Your task to perform on an android device: Search for the new Steph Curry shoes on Nike.com Image 0: 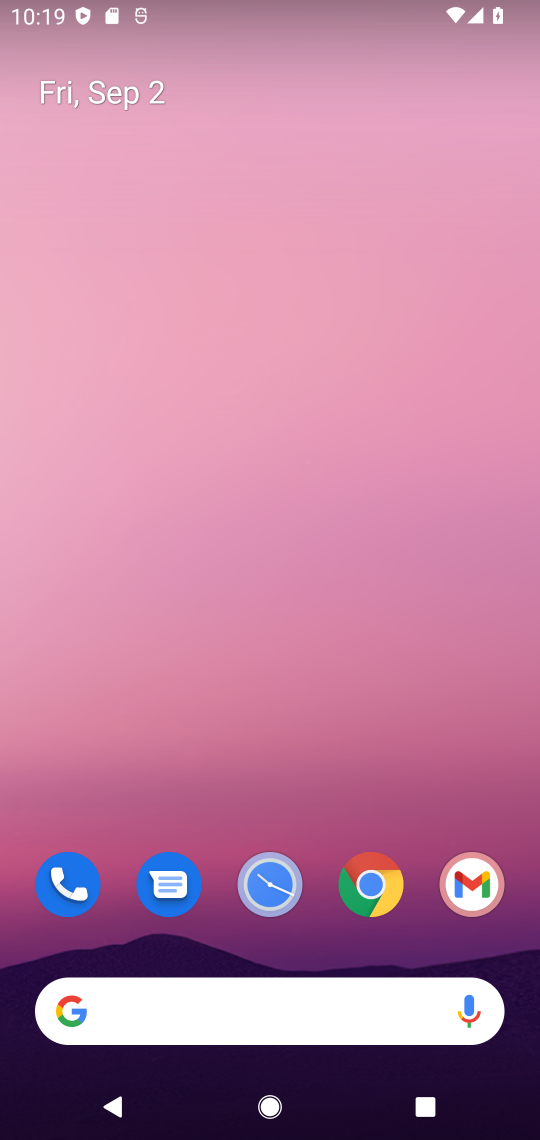
Step 0: click (309, 218)
Your task to perform on an android device: Search for the new Steph Curry shoes on Nike.com Image 1: 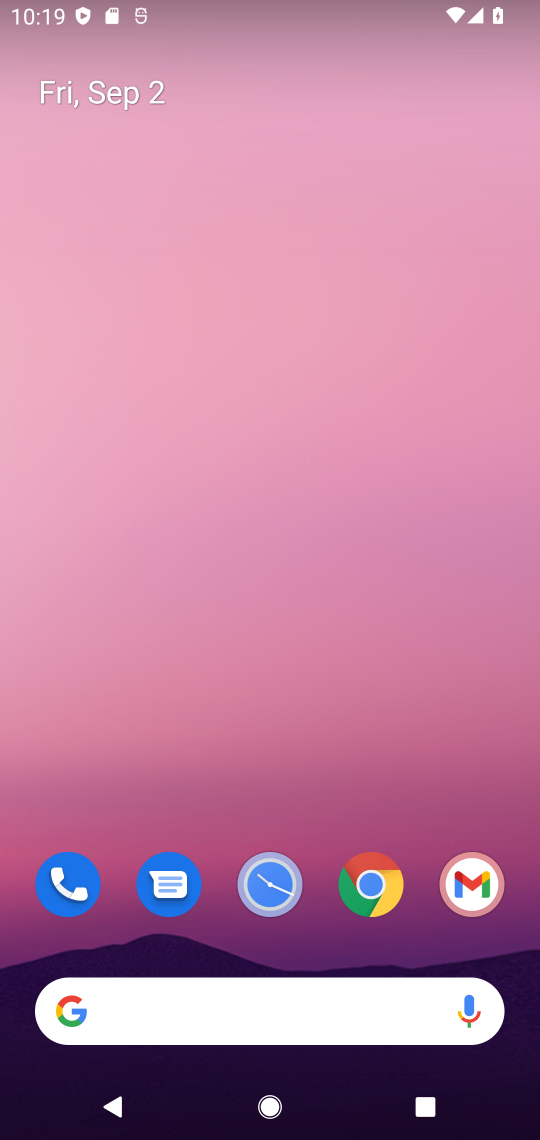
Step 1: click (309, 211)
Your task to perform on an android device: Search for the new Steph Curry shoes on Nike.com Image 2: 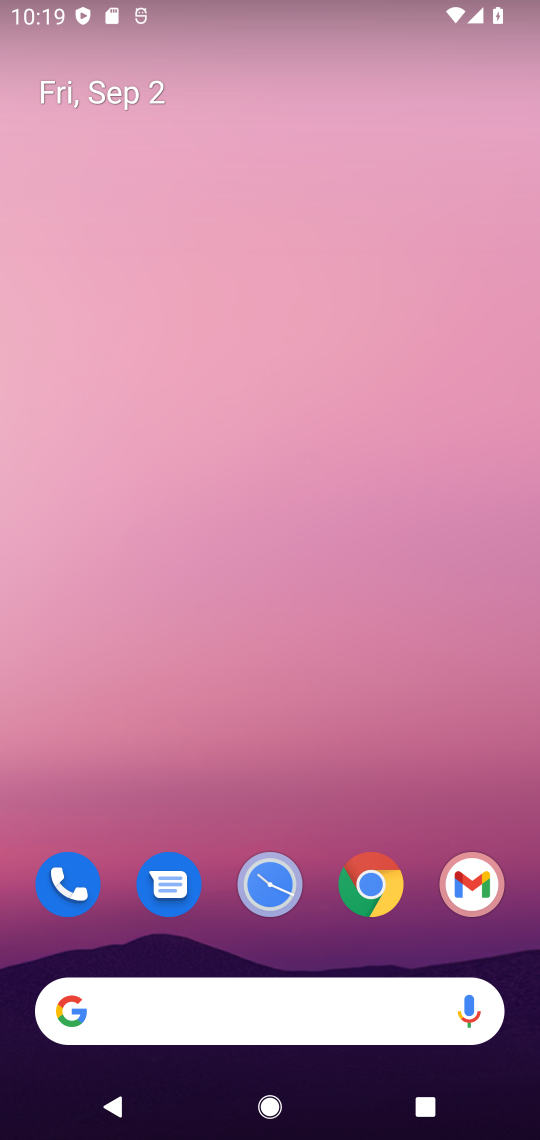
Step 2: click (309, 211)
Your task to perform on an android device: Search for the new Steph Curry shoes on Nike.com Image 3: 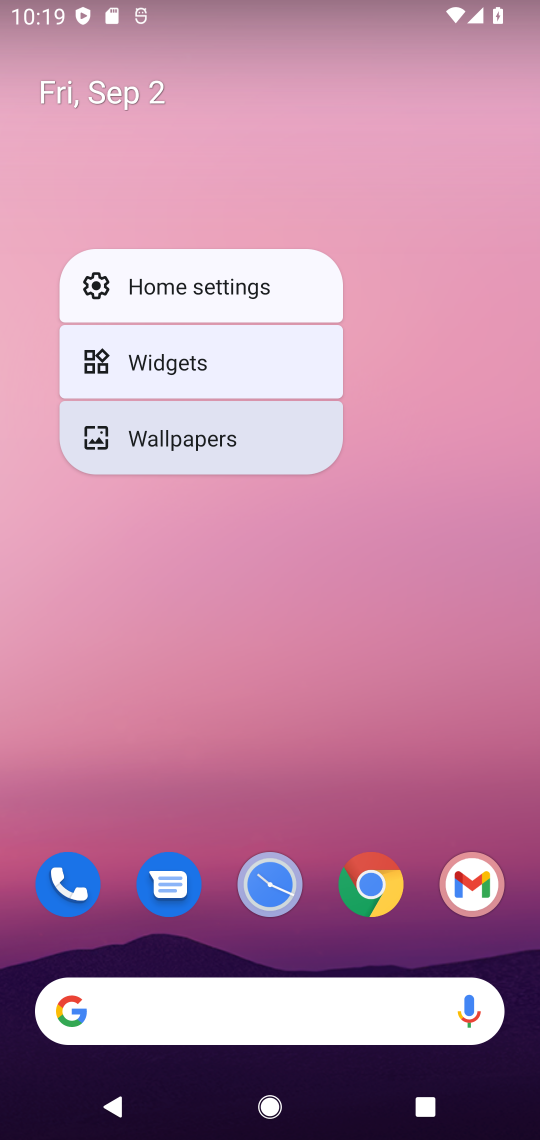
Step 3: click (425, 713)
Your task to perform on an android device: Search for the new Steph Curry shoes on Nike.com Image 4: 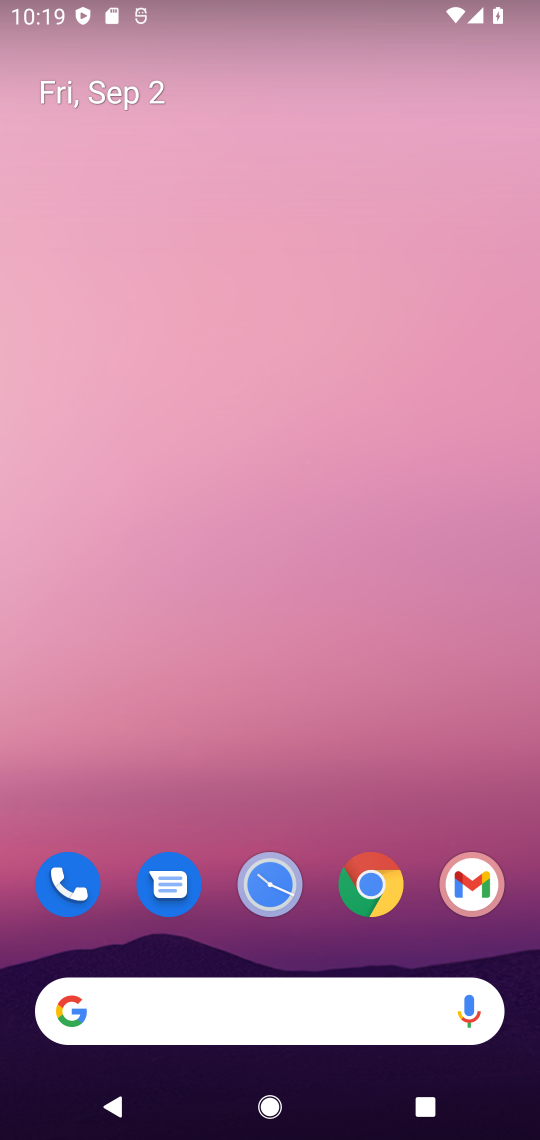
Step 4: click (371, 891)
Your task to perform on an android device: Search for the new Steph Curry shoes on Nike.com Image 5: 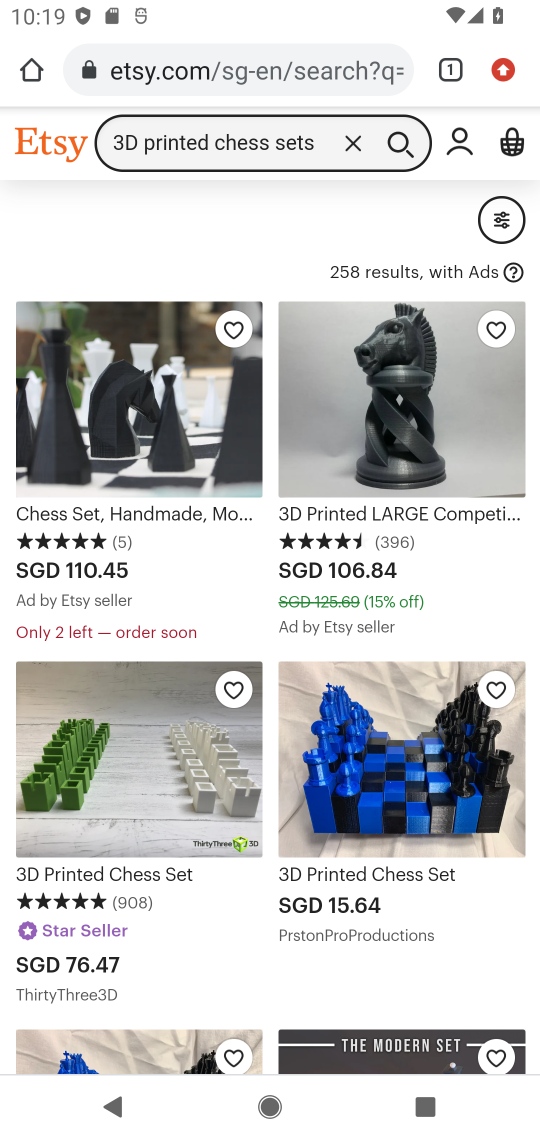
Step 5: click (332, 75)
Your task to perform on an android device: Search for the new Steph Curry shoes on Nike.com Image 6: 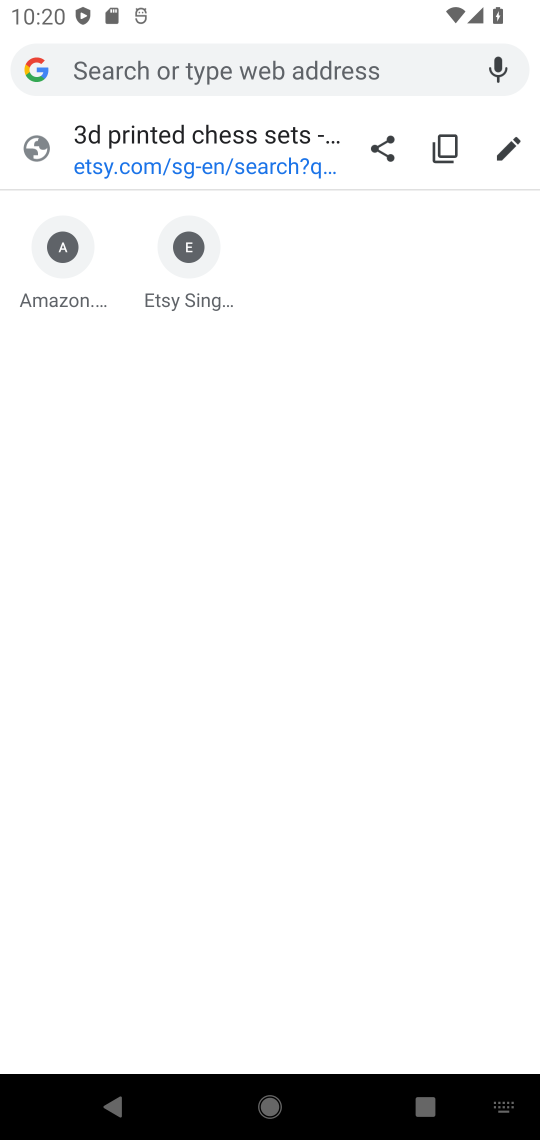
Step 6: type "nike.com"
Your task to perform on an android device: Search for the new Steph Curry shoes on Nike.com Image 7: 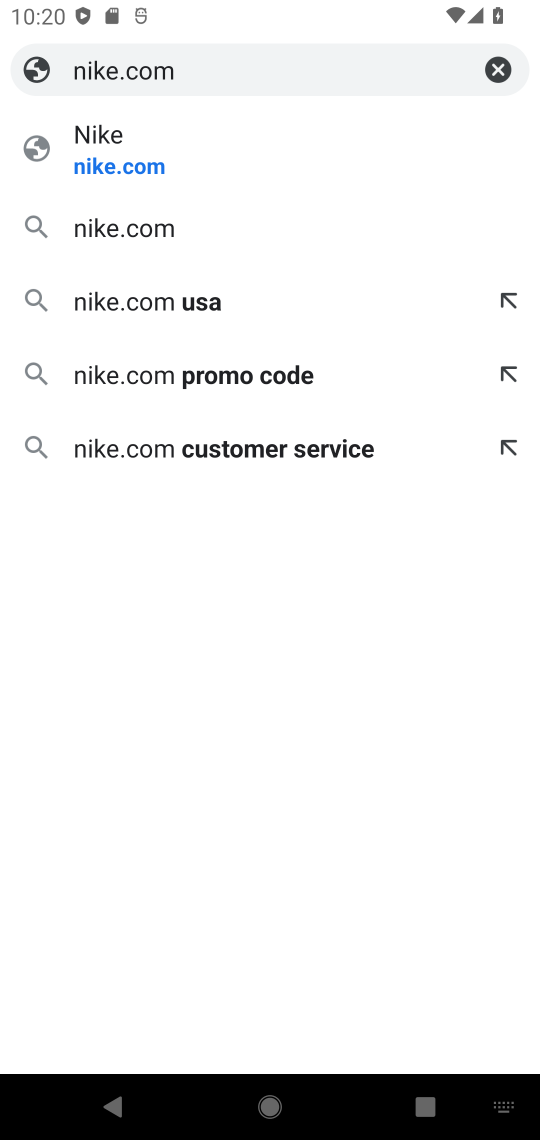
Step 7: click (235, 140)
Your task to perform on an android device: Search for the new Steph Curry shoes on Nike.com Image 8: 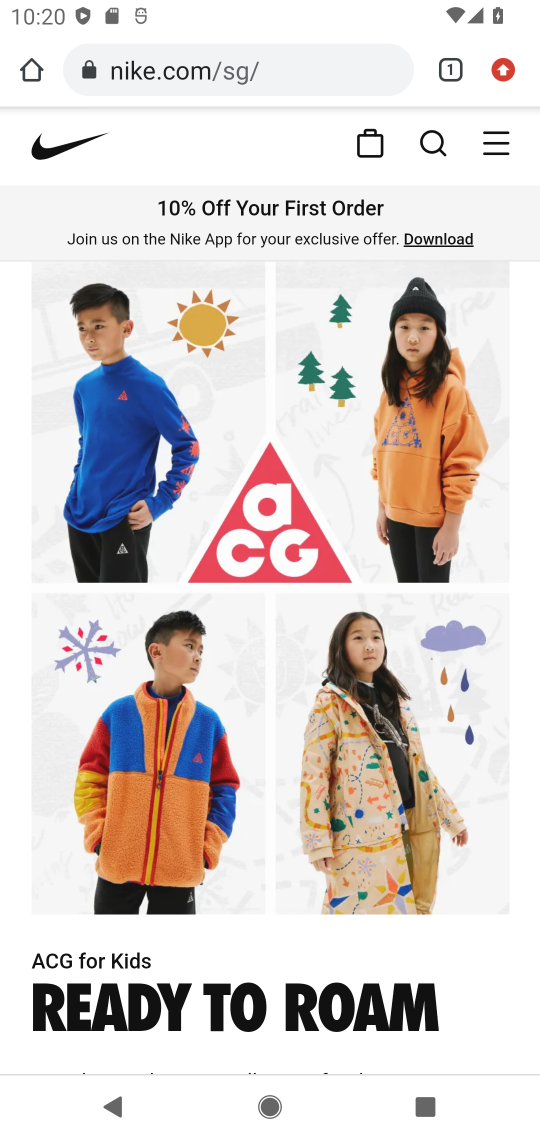
Step 8: drag from (296, 984) to (308, 673)
Your task to perform on an android device: Search for the new Steph Curry shoes on Nike.com Image 9: 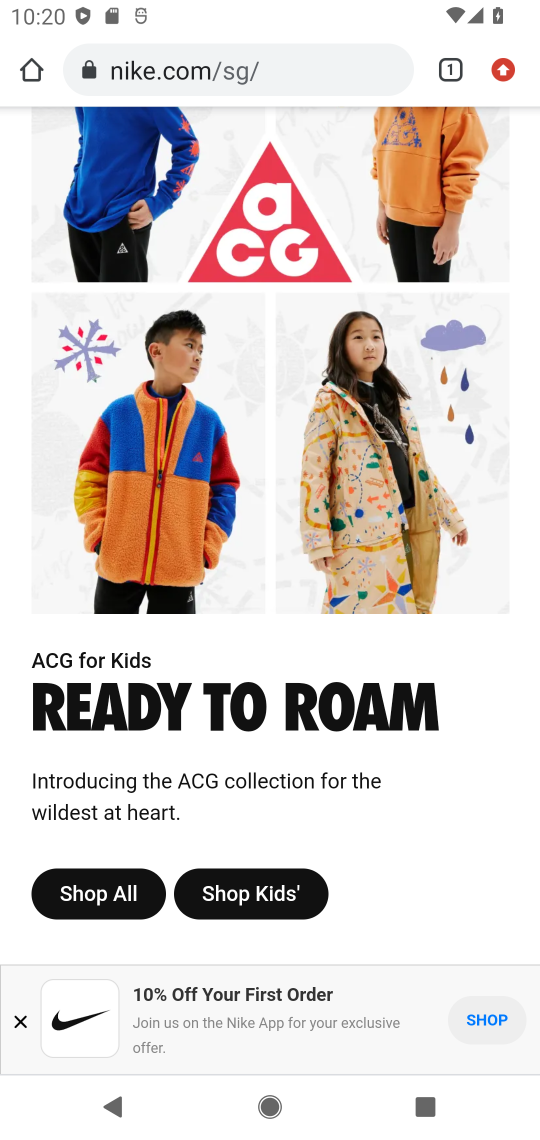
Step 9: drag from (350, 351) to (295, 806)
Your task to perform on an android device: Search for the new Steph Curry shoes on Nike.com Image 10: 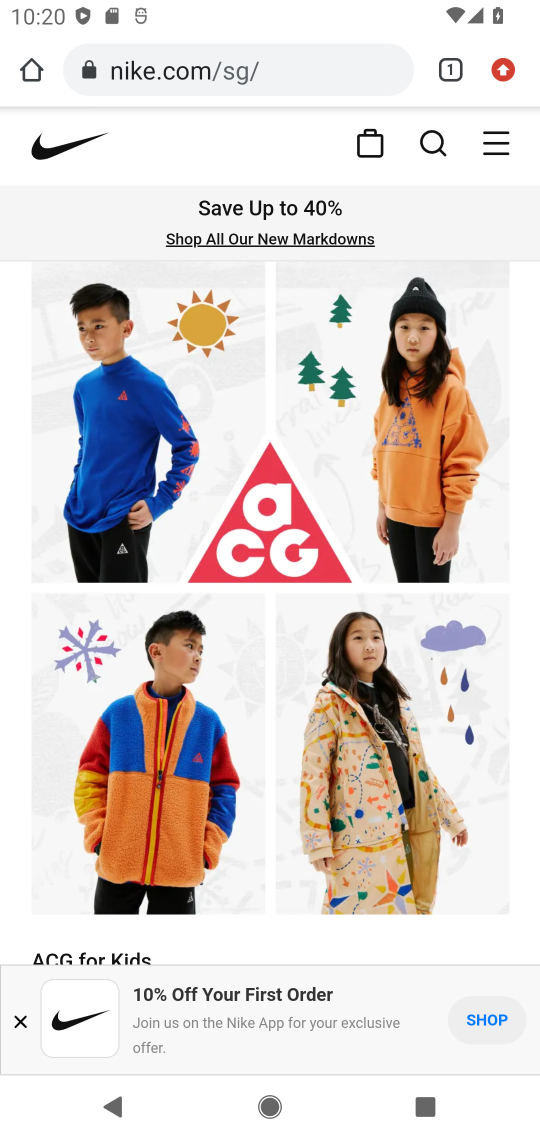
Step 10: click (431, 143)
Your task to perform on an android device: Search for the new Steph Curry shoes on Nike.com Image 11: 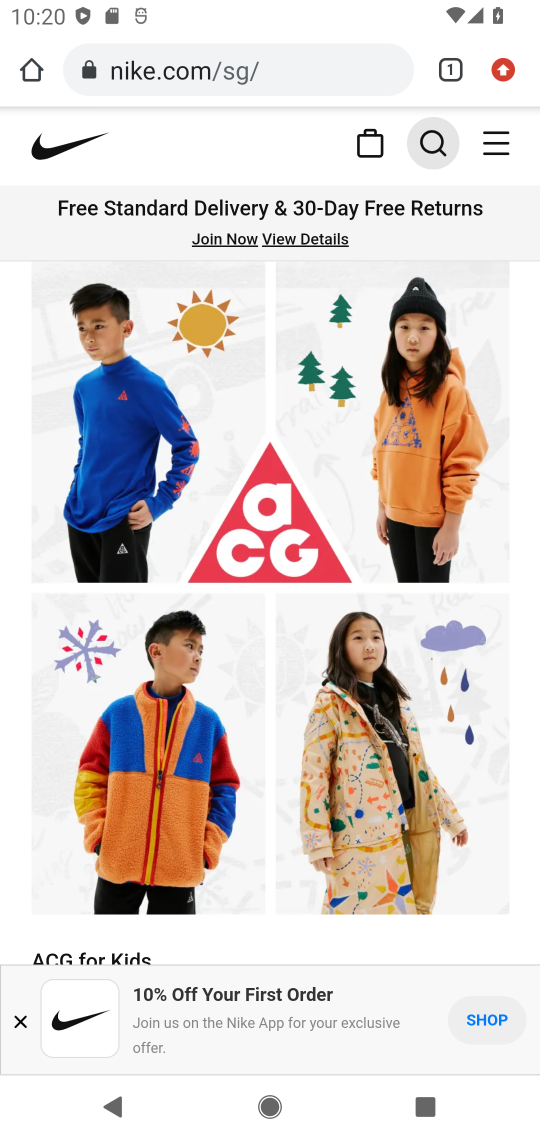
Step 11: click (431, 143)
Your task to perform on an android device: Search for the new Steph Curry shoes on Nike.com Image 12: 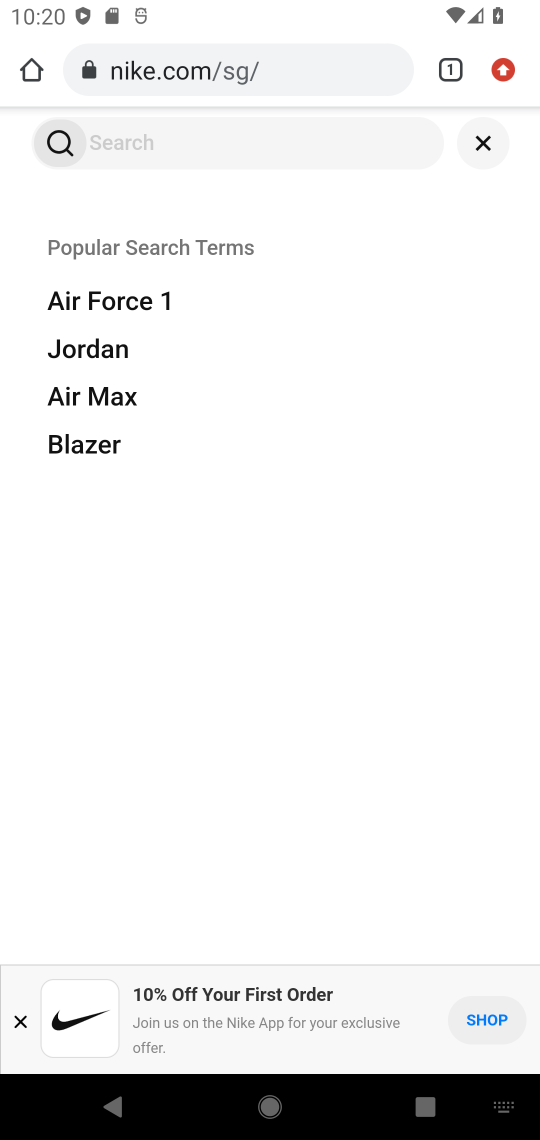
Step 12: type "new steph curry shoes"
Your task to perform on an android device: Search for the new Steph Curry shoes on Nike.com Image 13: 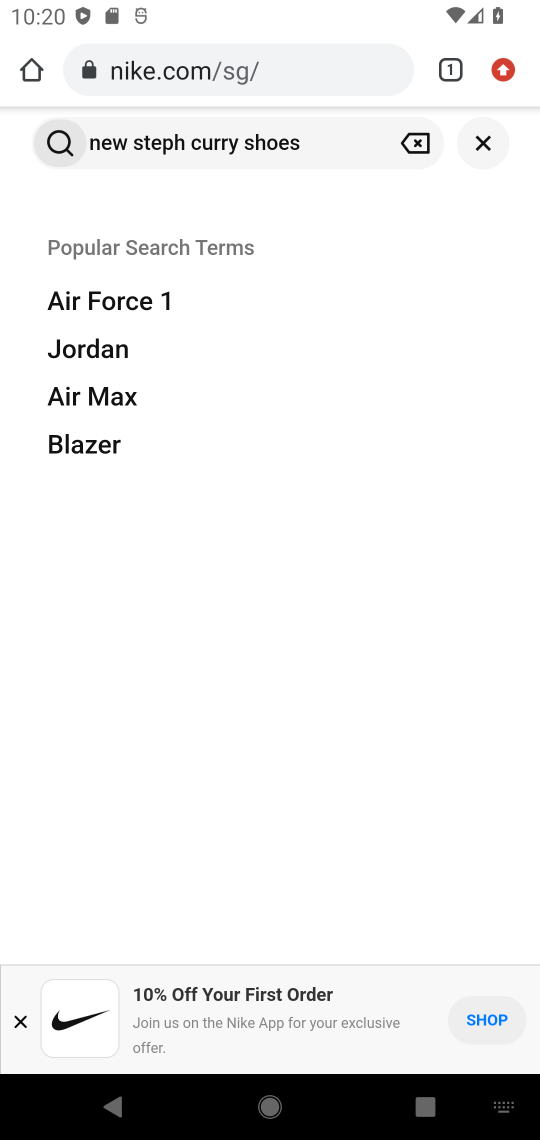
Step 13: click (59, 149)
Your task to perform on an android device: Search for the new Steph Curry shoes on Nike.com Image 14: 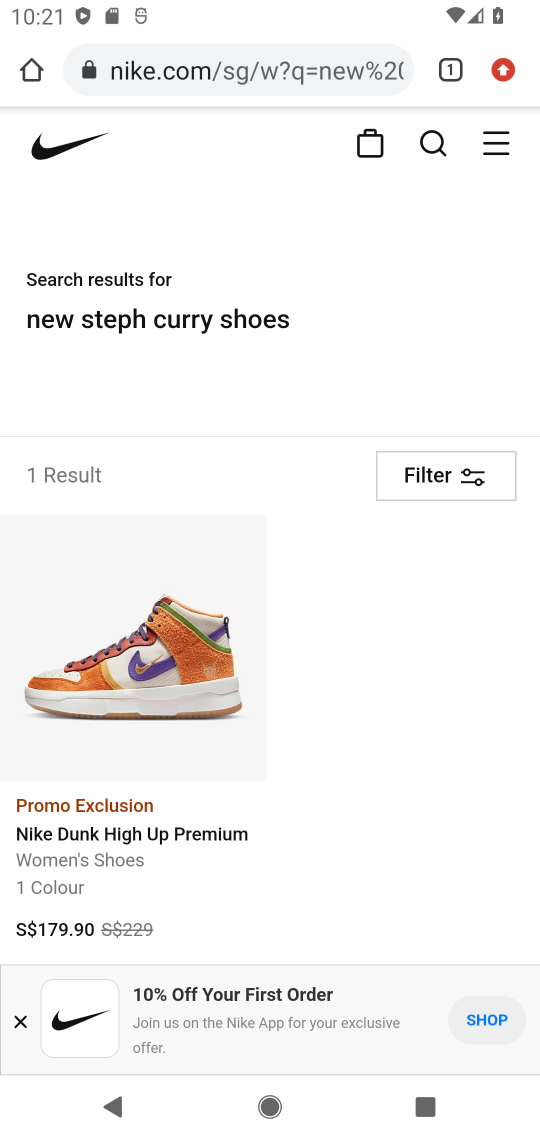
Step 14: task complete